Your task to perform on an android device: Do I have any events this weekend? Image 0: 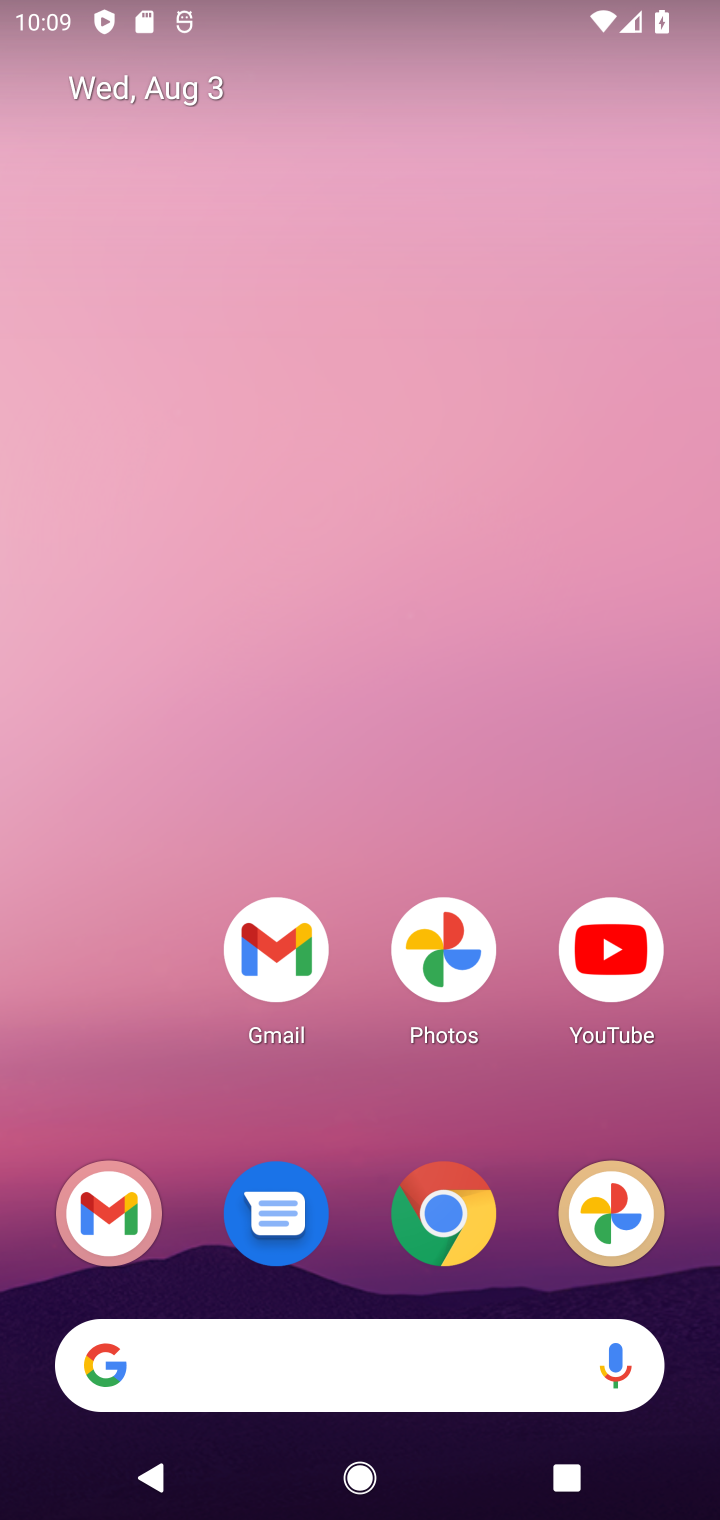
Step 0: drag from (692, 1133) to (570, 257)
Your task to perform on an android device: Do I have any events this weekend? Image 1: 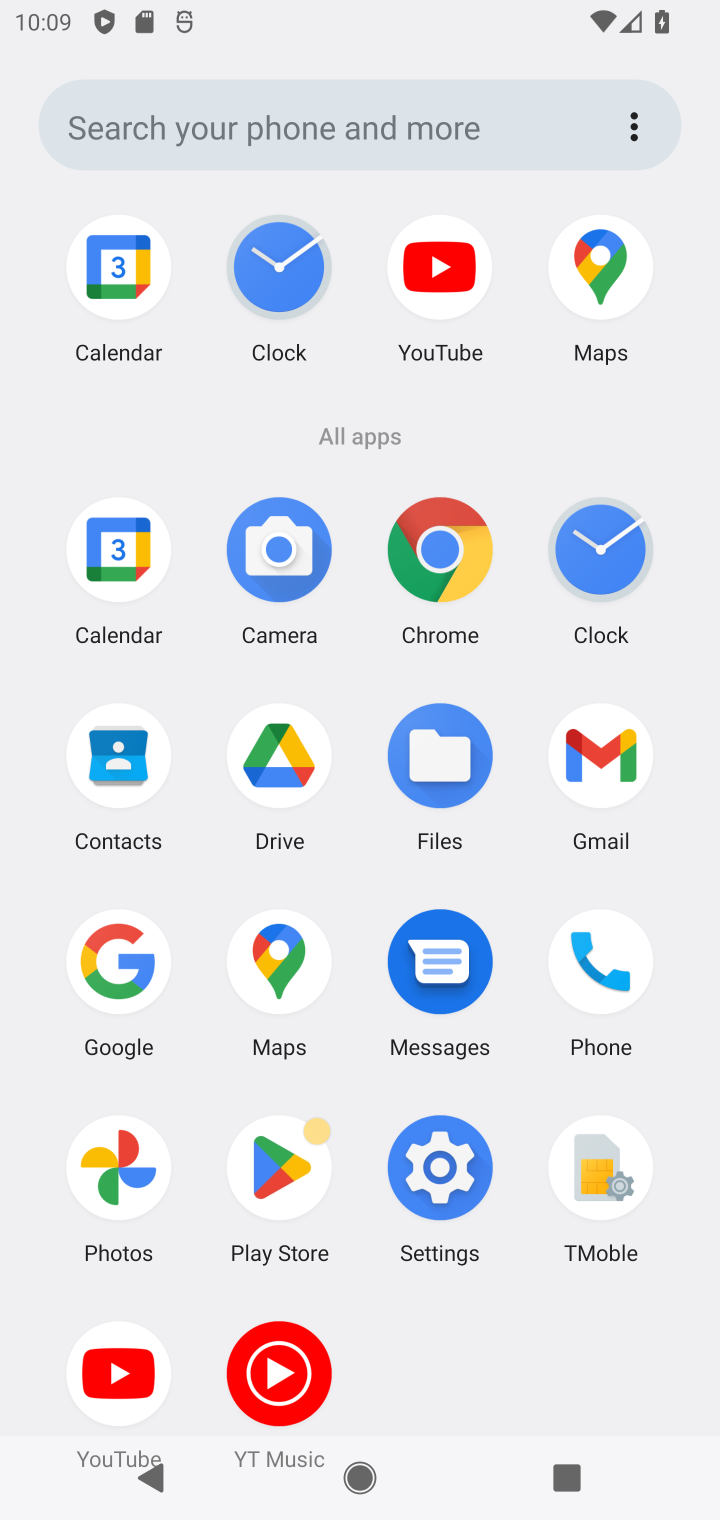
Step 1: click (91, 257)
Your task to perform on an android device: Do I have any events this weekend? Image 2: 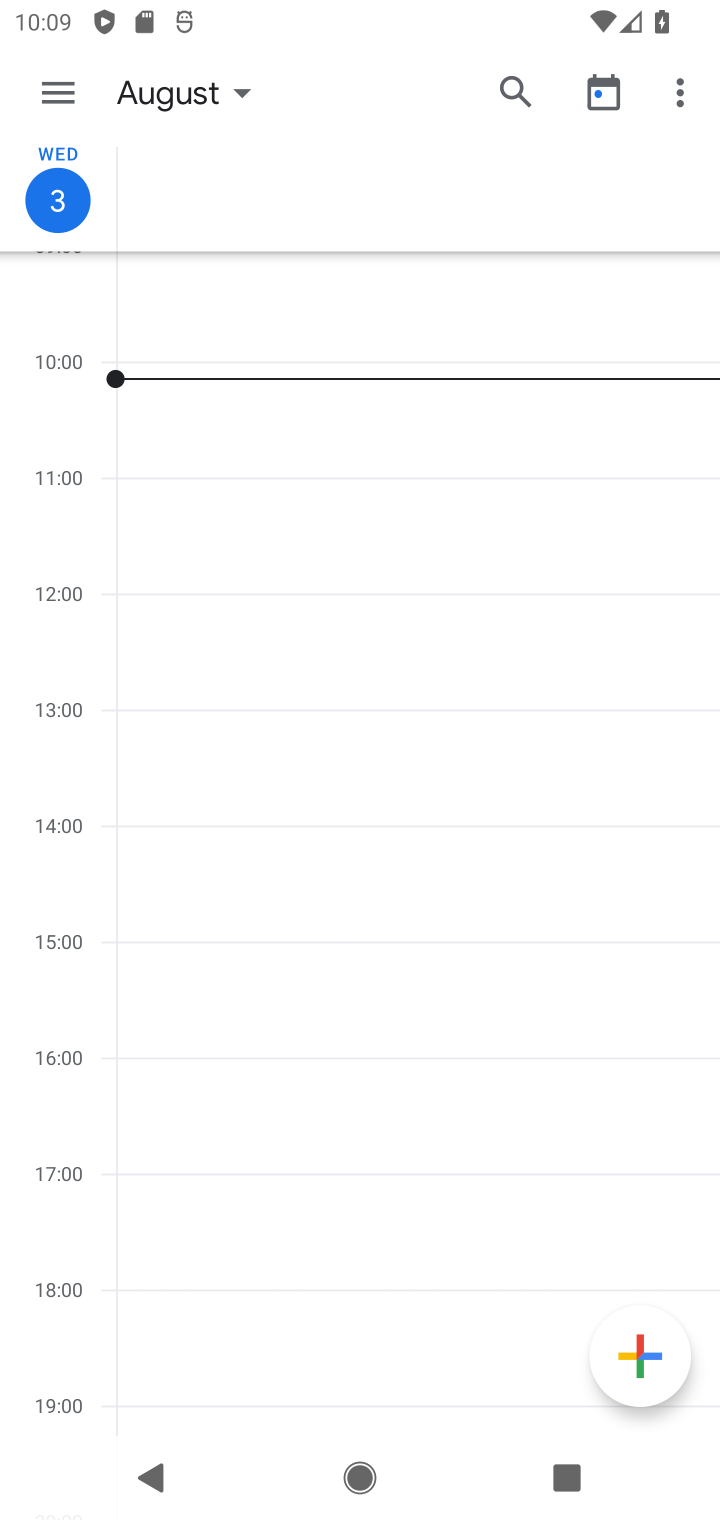
Step 2: click (73, 106)
Your task to perform on an android device: Do I have any events this weekend? Image 3: 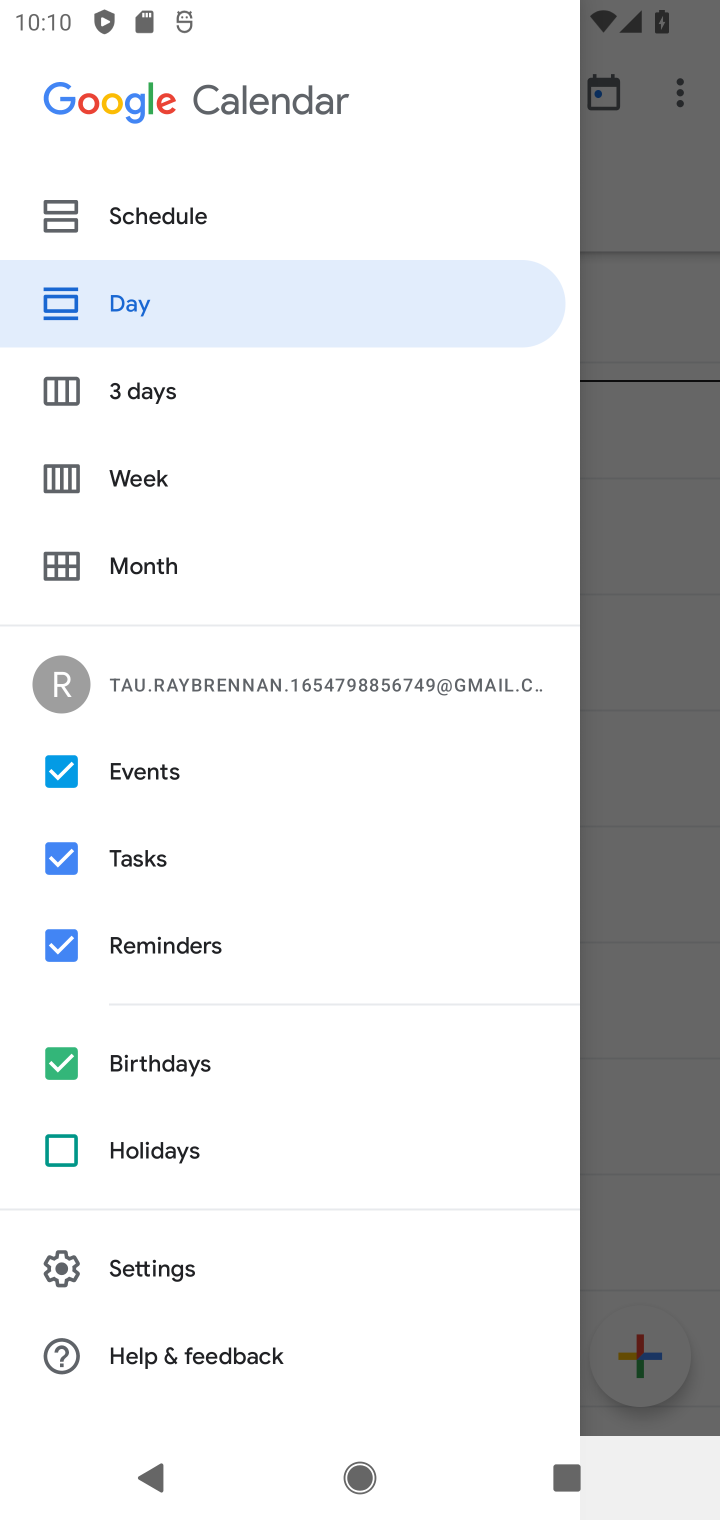
Step 3: click (147, 382)
Your task to perform on an android device: Do I have any events this weekend? Image 4: 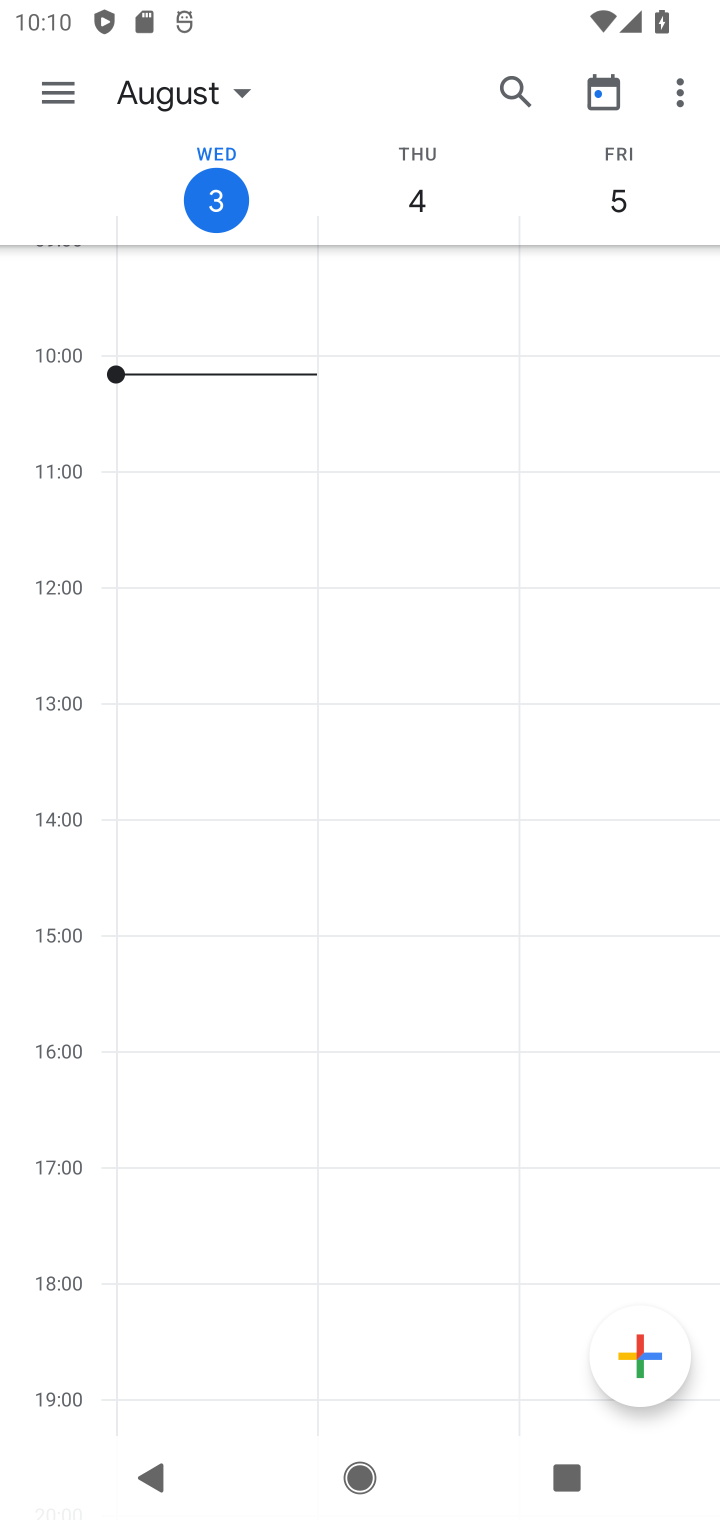
Step 4: click (167, 90)
Your task to perform on an android device: Do I have any events this weekend? Image 5: 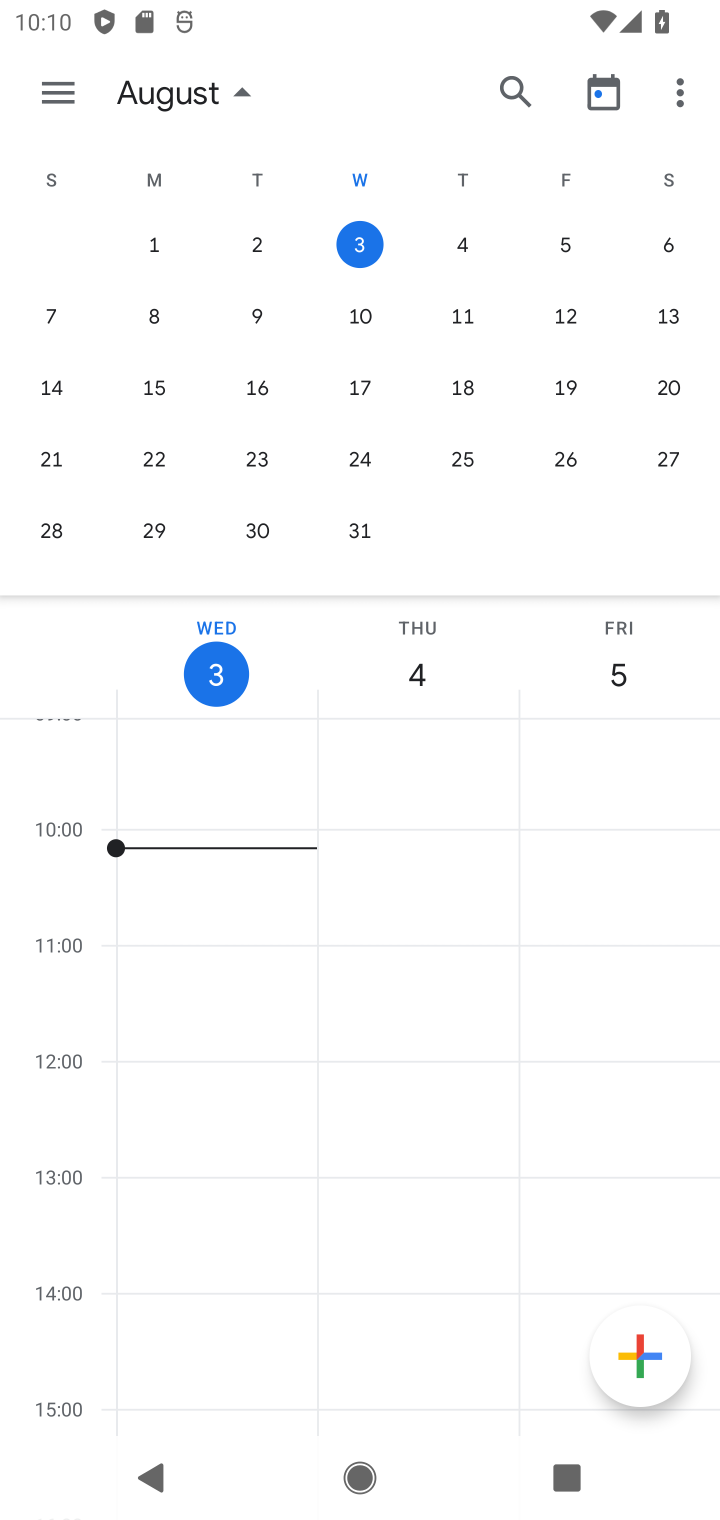
Step 5: click (567, 231)
Your task to perform on an android device: Do I have any events this weekend? Image 6: 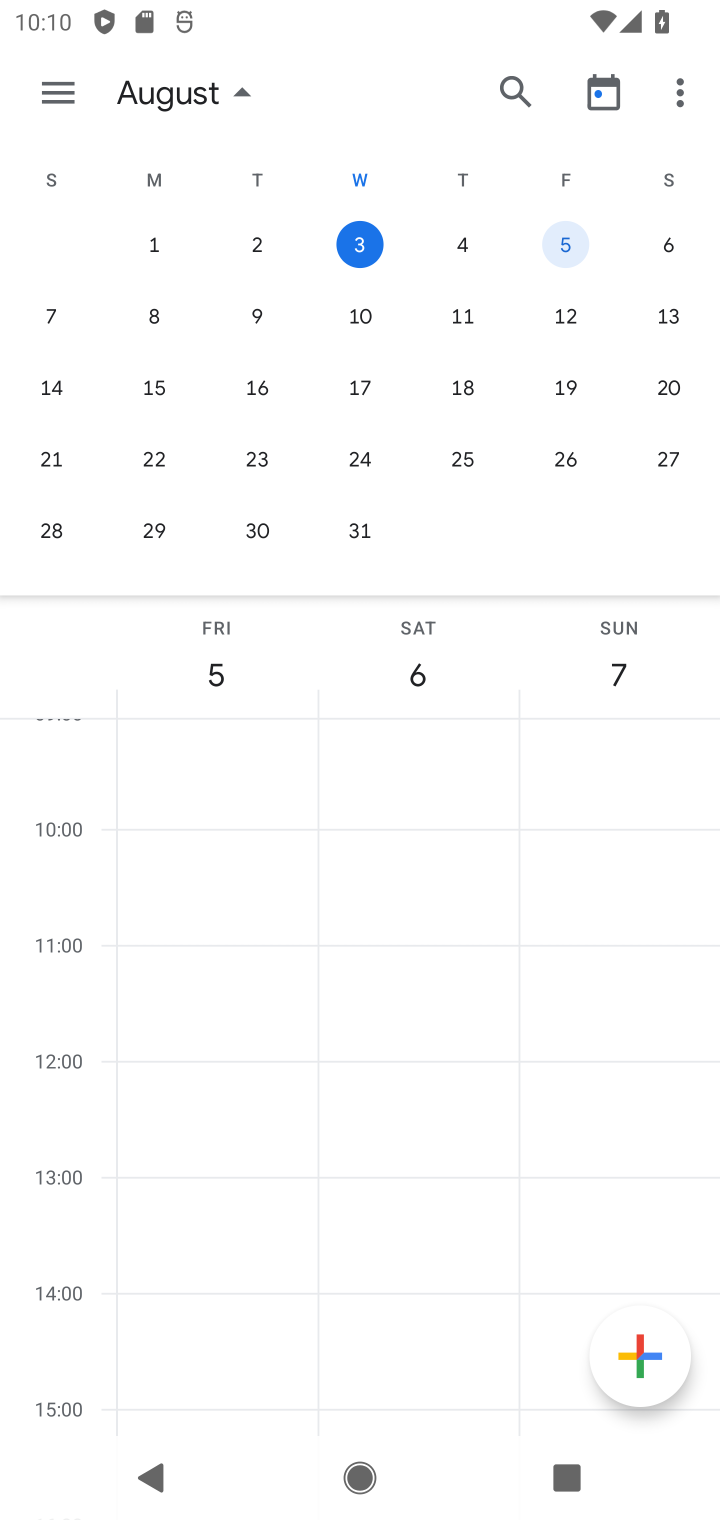
Step 6: task complete